Your task to perform on an android device: turn off data saver in the chrome app Image 0: 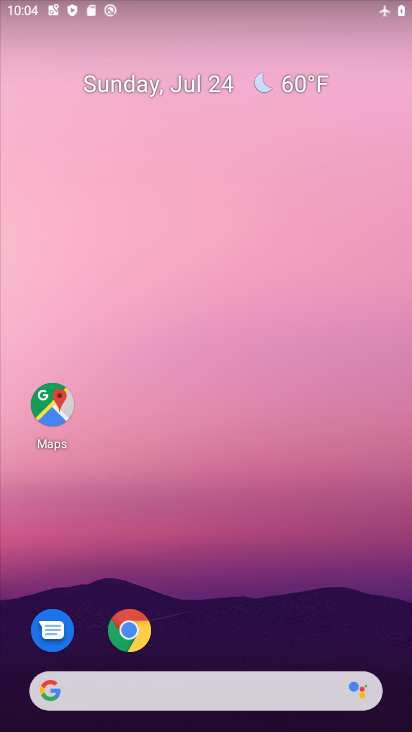
Step 0: drag from (212, 599) to (299, 103)
Your task to perform on an android device: turn off data saver in the chrome app Image 1: 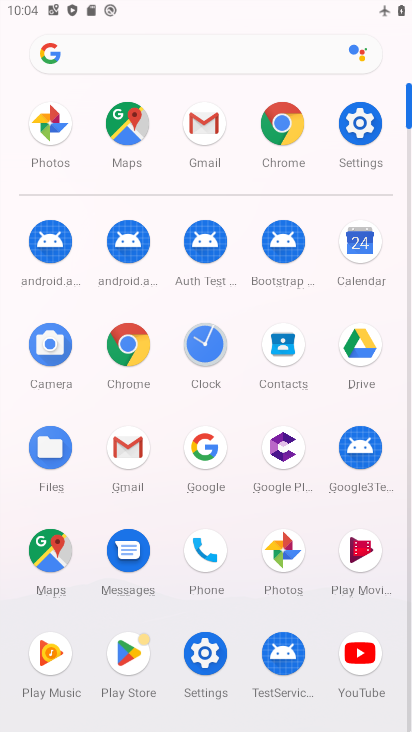
Step 1: click (134, 360)
Your task to perform on an android device: turn off data saver in the chrome app Image 2: 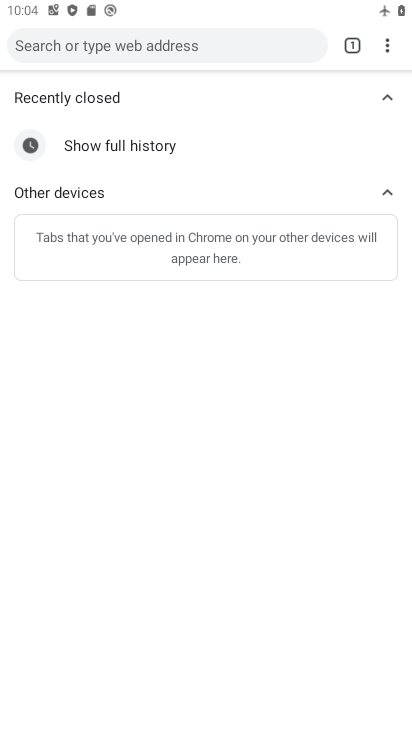
Step 2: click (384, 48)
Your task to perform on an android device: turn off data saver in the chrome app Image 3: 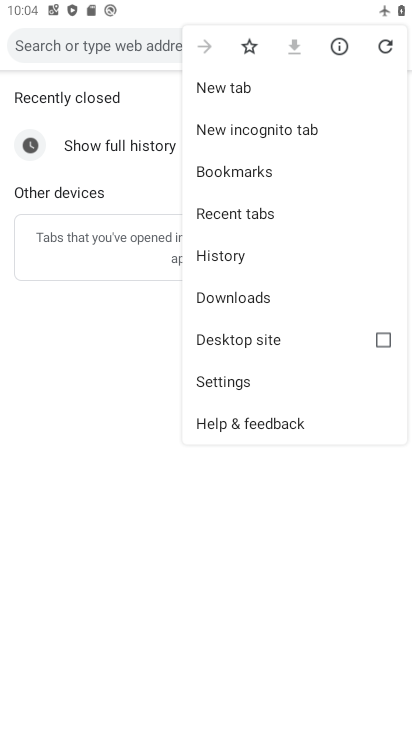
Step 3: click (239, 379)
Your task to perform on an android device: turn off data saver in the chrome app Image 4: 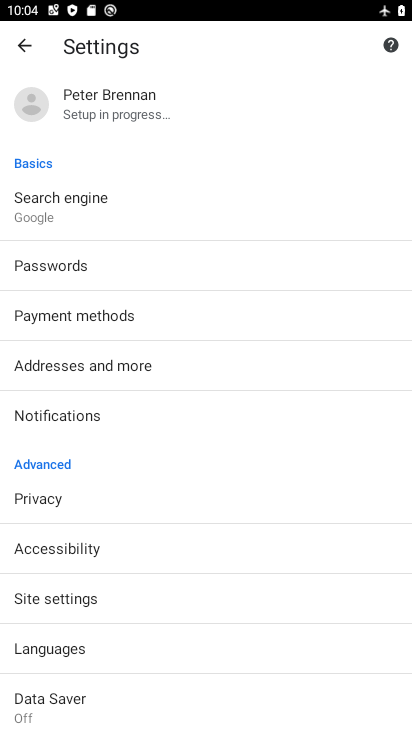
Step 4: drag from (65, 642) to (144, 256)
Your task to perform on an android device: turn off data saver in the chrome app Image 5: 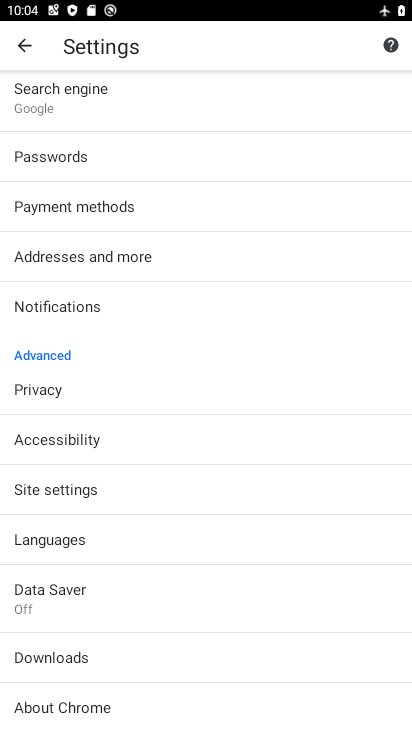
Step 5: click (76, 594)
Your task to perform on an android device: turn off data saver in the chrome app Image 6: 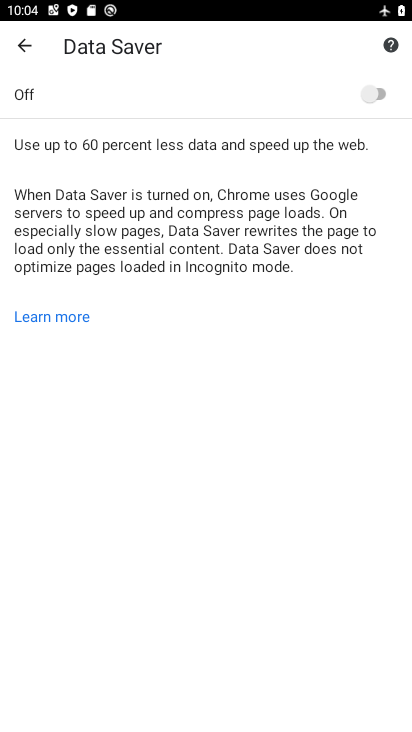
Step 6: task complete